Your task to perform on an android device: uninstall "YouTube Kids" Image 0: 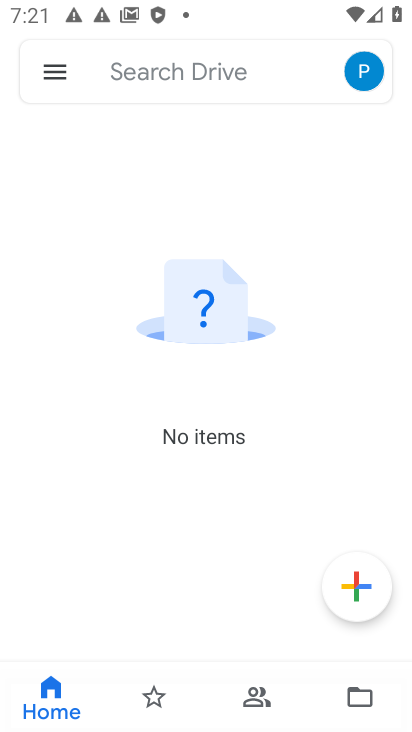
Step 0: task impossible